Your task to perform on an android device: Go to Android settings Image 0: 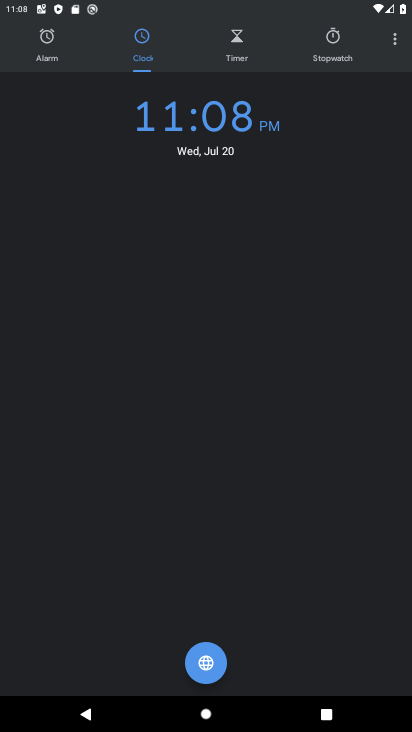
Step 0: press home button
Your task to perform on an android device: Go to Android settings Image 1: 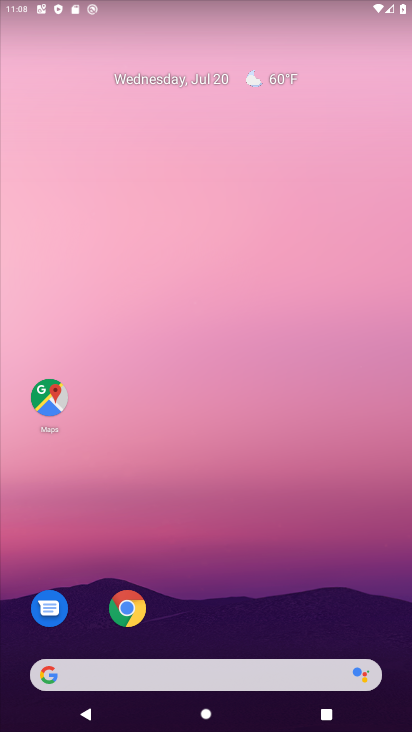
Step 1: drag from (288, 610) to (248, 0)
Your task to perform on an android device: Go to Android settings Image 2: 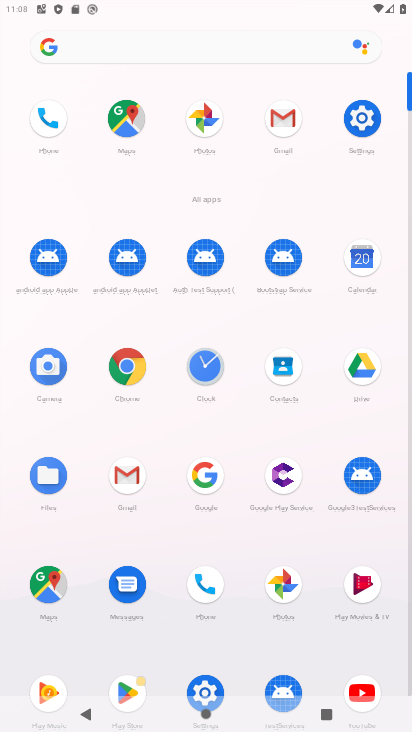
Step 2: click (371, 110)
Your task to perform on an android device: Go to Android settings Image 3: 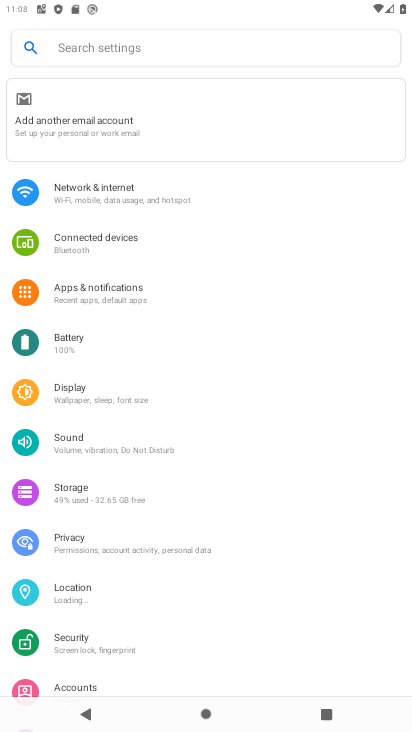
Step 3: drag from (235, 566) to (234, 129)
Your task to perform on an android device: Go to Android settings Image 4: 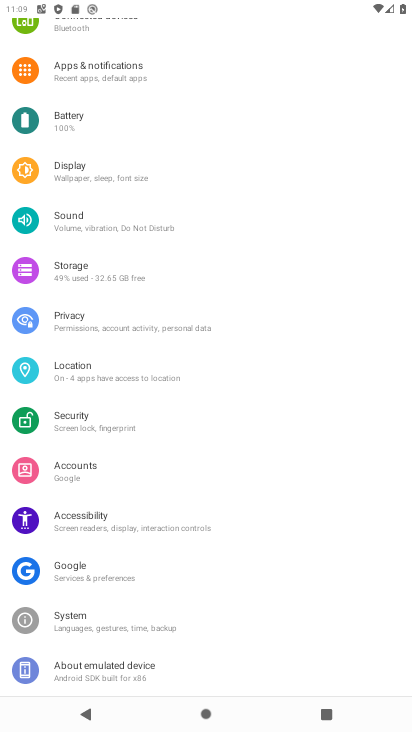
Step 4: click (130, 630)
Your task to perform on an android device: Go to Android settings Image 5: 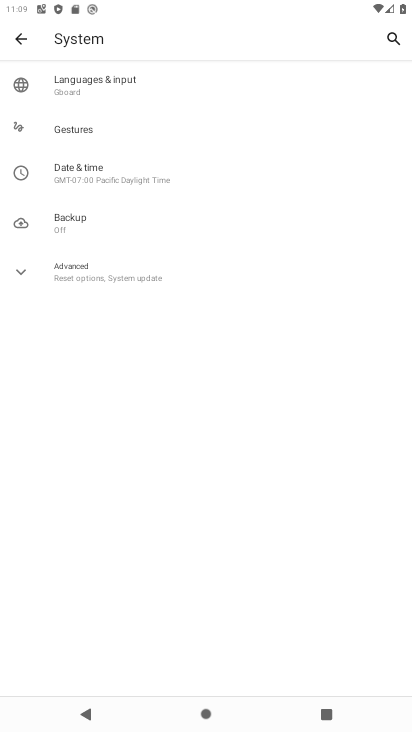
Step 5: task complete